Your task to perform on an android device: toggle location history Image 0: 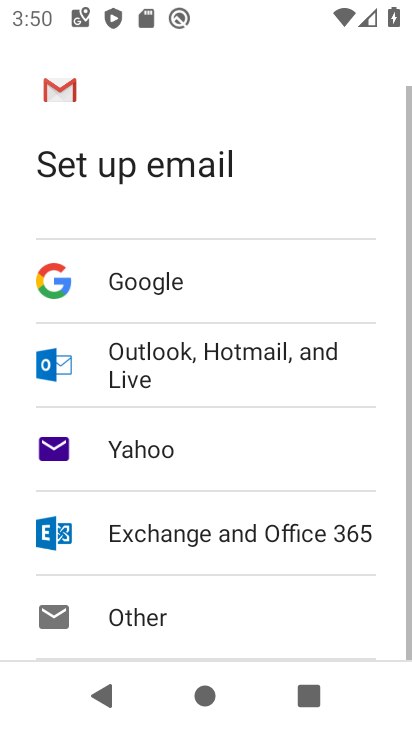
Step 0: press home button
Your task to perform on an android device: toggle location history Image 1: 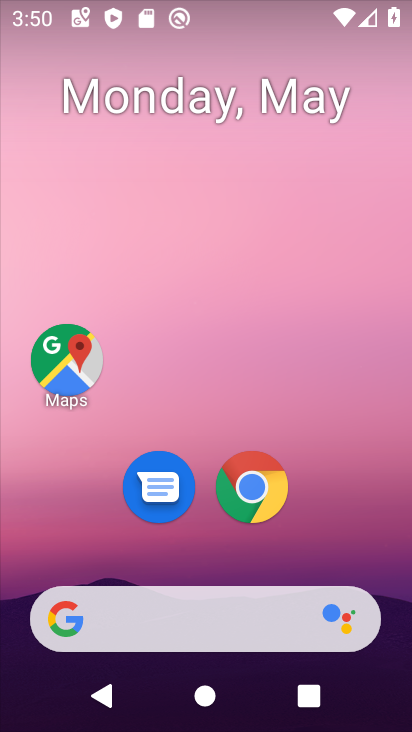
Step 1: drag from (200, 594) to (210, 495)
Your task to perform on an android device: toggle location history Image 2: 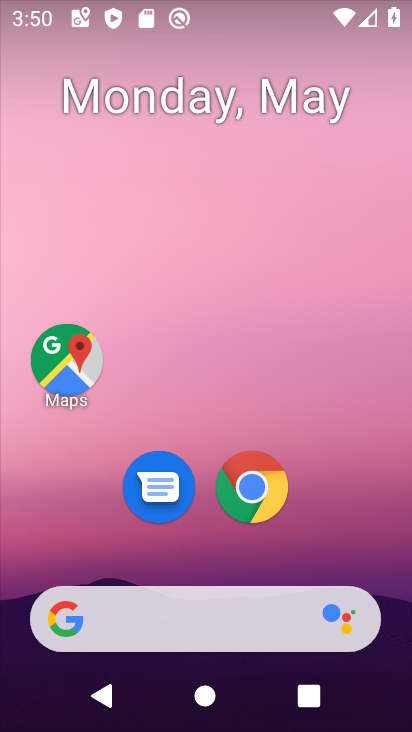
Step 2: drag from (207, 613) to (223, 461)
Your task to perform on an android device: toggle location history Image 3: 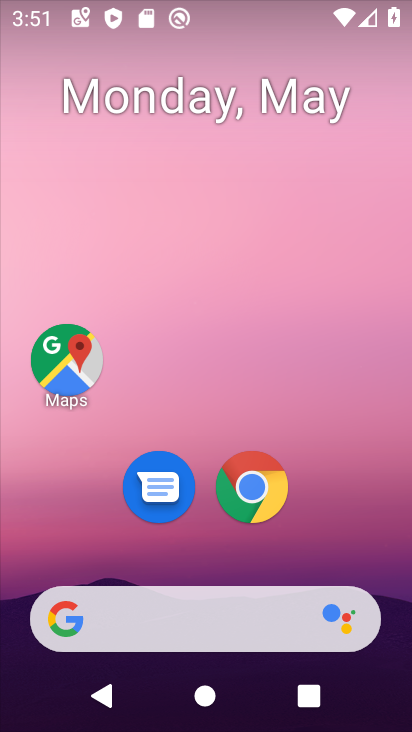
Step 3: drag from (251, 575) to (382, 158)
Your task to perform on an android device: toggle location history Image 4: 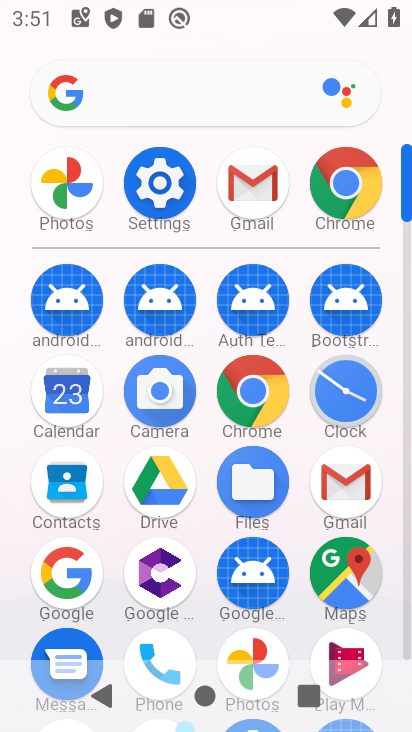
Step 4: click (161, 191)
Your task to perform on an android device: toggle location history Image 5: 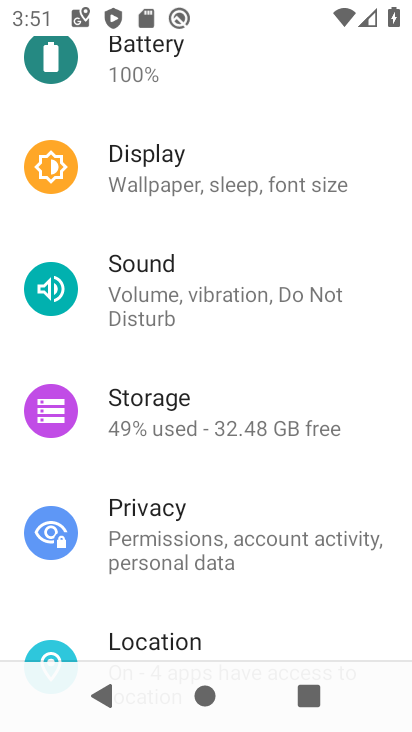
Step 5: click (177, 646)
Your task to perform on an android device: toggle location history Image 6: 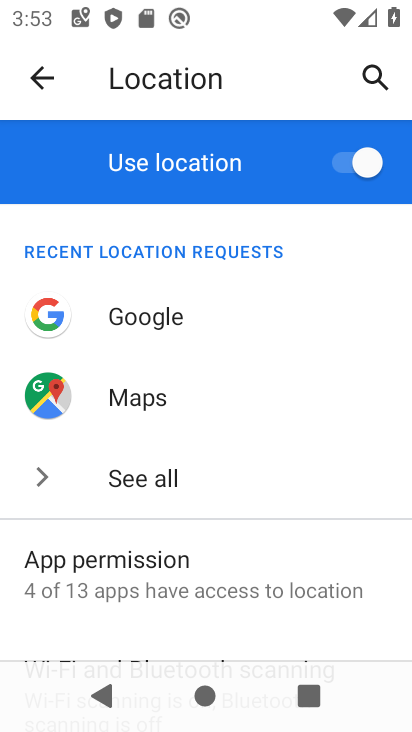
Step 6: drag from (226, 616) to (244, 239)
Your task to perform on an android device: toggle location history Image 7: 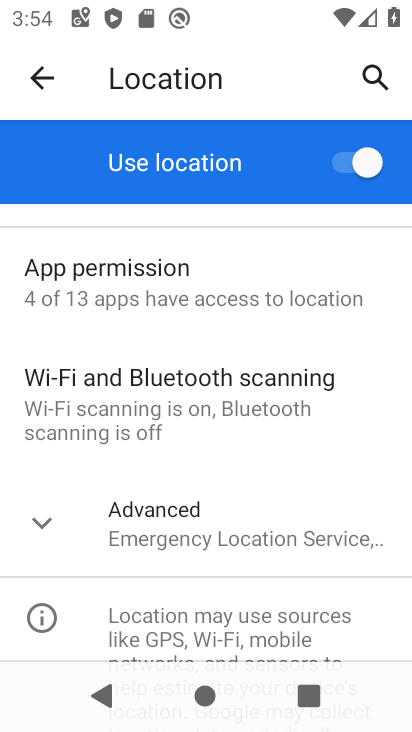
Step 7: click (214, 532)
Your task to perform on an android device: toggle location history Image 8: 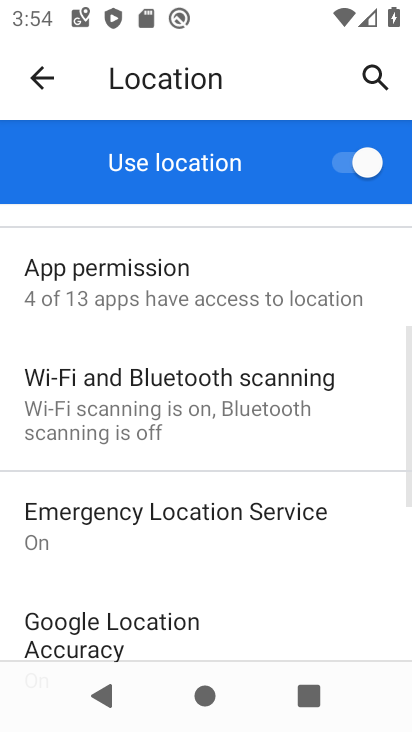
Step 8: drag from (204, 626) to (213, 294)
Your task to perform on an android device: toggle location history Image 9: 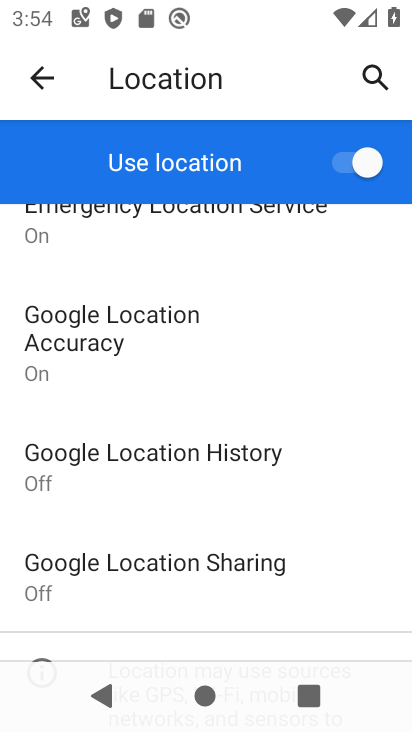
Step 9: click (172, 474)
Your task to perform on an android device: toggle location history Image 10: 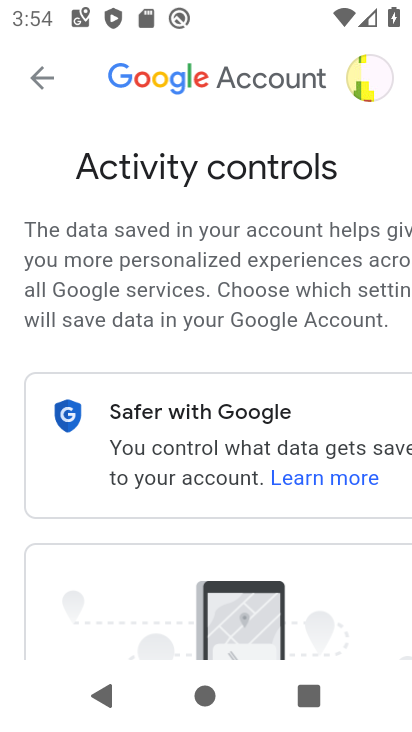
Step 10: drag from (328, 585) to (332, 319)
Your task to perform on an android device: toggle location history Image 11: 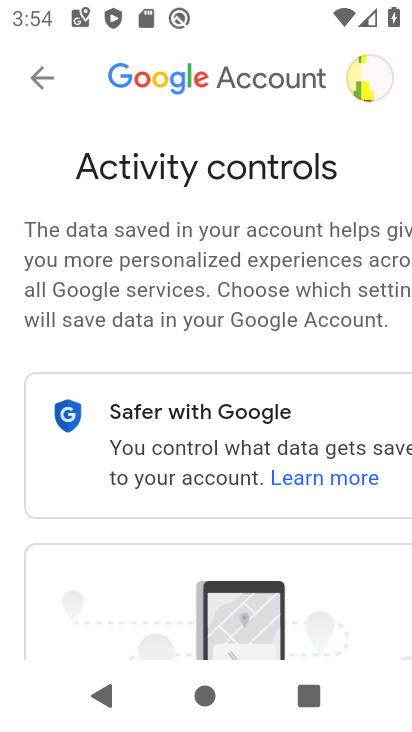
Step 11: drag from (324, 653) to (359, 286)
Your task to perform on an android device: toggle location history Image 12: 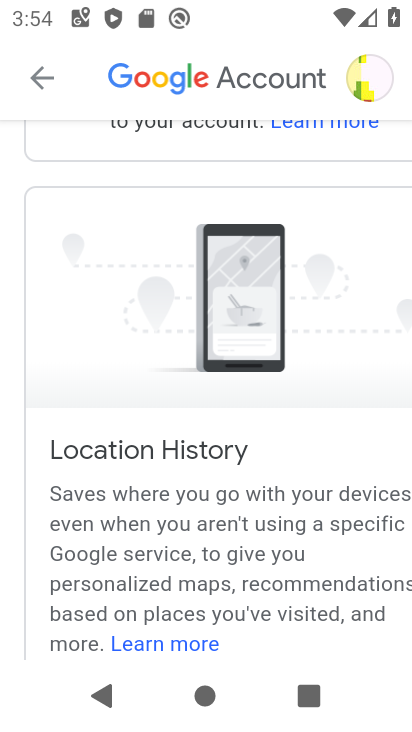
Step 12: drag from (316, 627) to (327, 323)
Your task to perform on an android device: toggle location history Image 13: 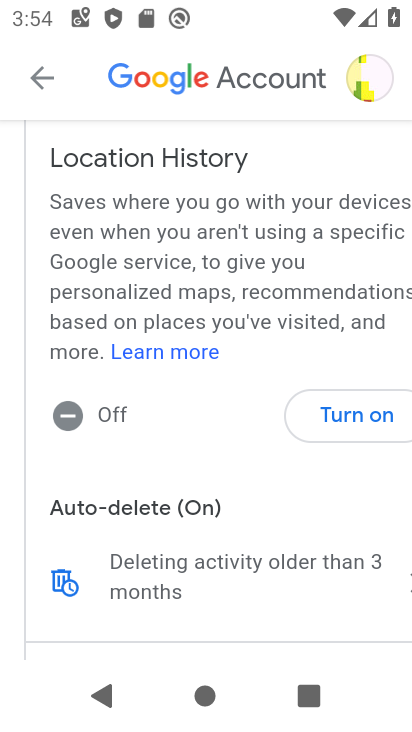
Step 13: click (365, 415)
Your task to perform on an android device: toggle location history Image 14: 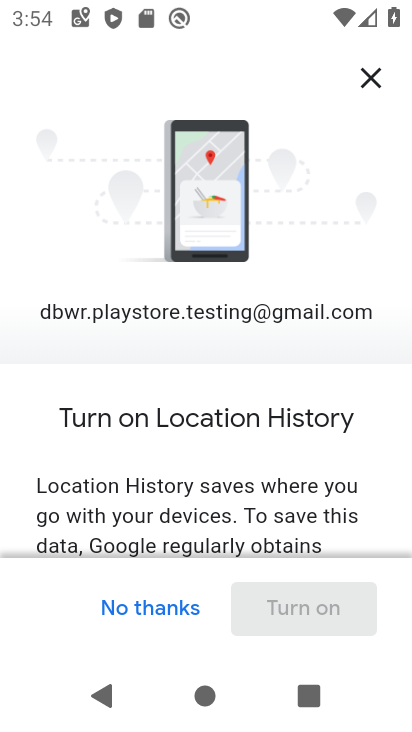
Step 14: drag from (323, 527) to (337, 271)
Your task to perform on an android device: toggle location history Image 15: 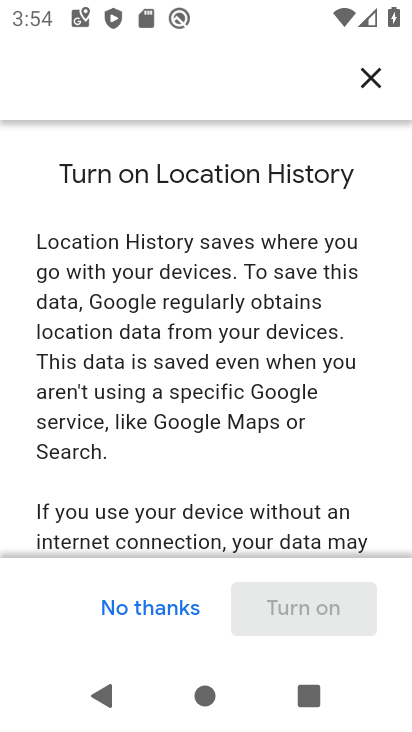
Step 15: drag from (334, 529) to (371, 228)
Your task to perform on an android device: toggle location history Image 16: 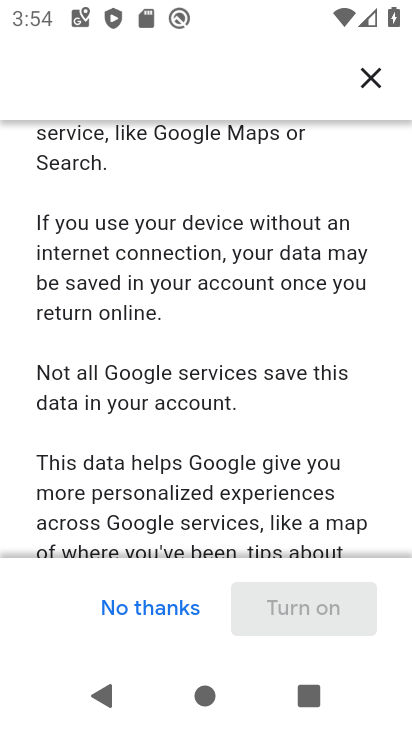
Step 16: drag from (372, 543) to (350, 238)
Your task to perform on an android device: toggle location history Image 17: 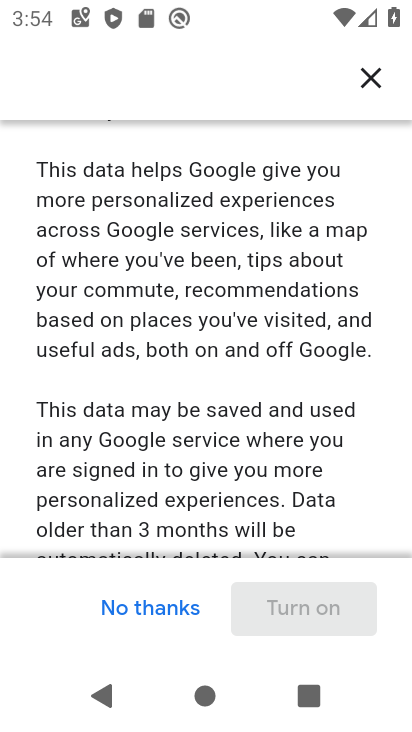
Step 17: drag from (303, 538) to (319, 301)
Your task to perform on an android device: toggle location history Image 18: 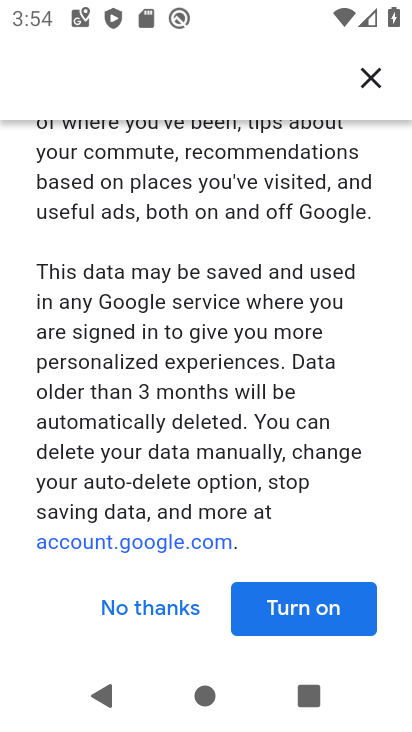
Step 18: click (313, 613)
Your task to perform on an android device: toggle location history Image 19: 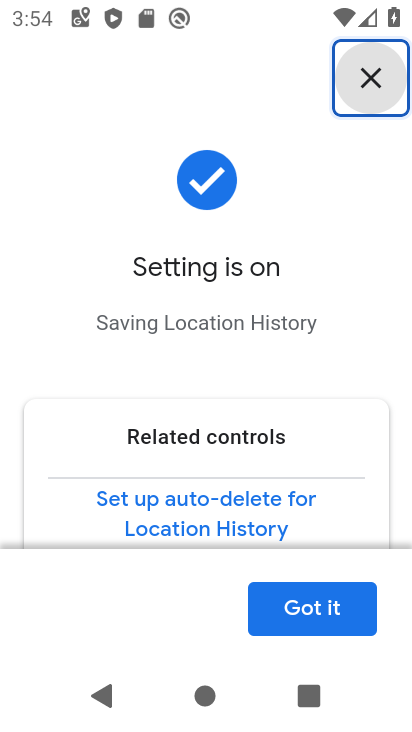
Step 19: click (313, 613)
Your task to perform on an android device: toggle location history Image 20: 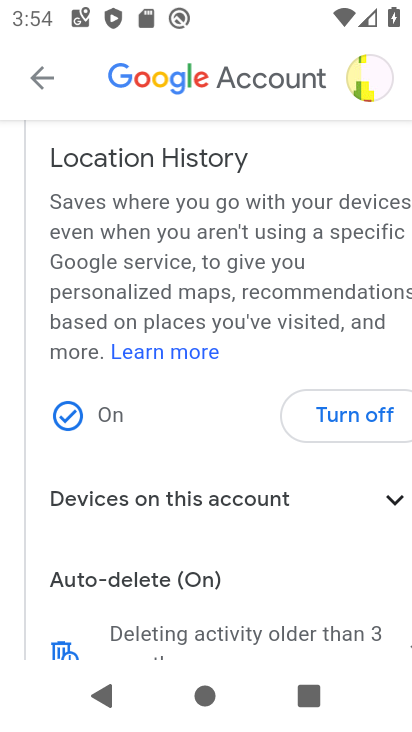
Step 20: task complete